Your task to perform on an android device: When is my next meeting? Image 0: 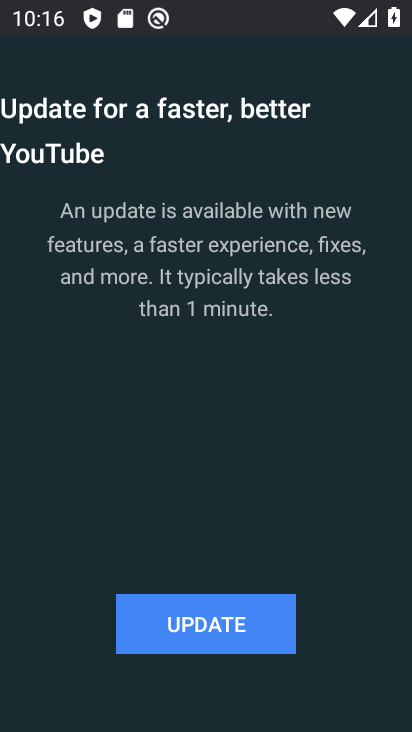
Step 0: press home button
Your task to perform on an android device: When is my next meeting? Image 1: 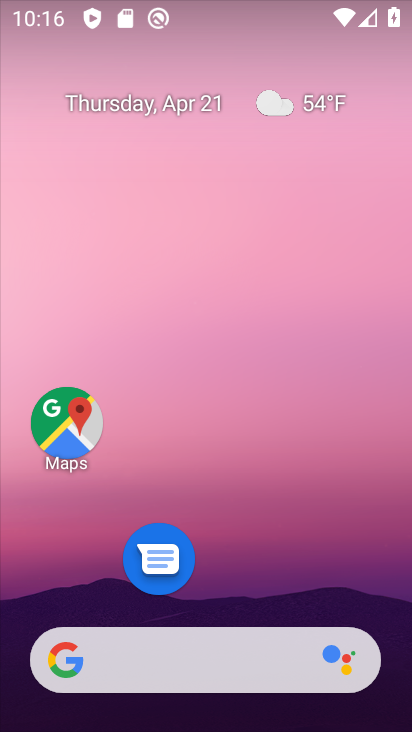
Step 1: drag from (168, 343) to (200, 84)
Your task to perform on an android device: When is my next meeting? Image 2: 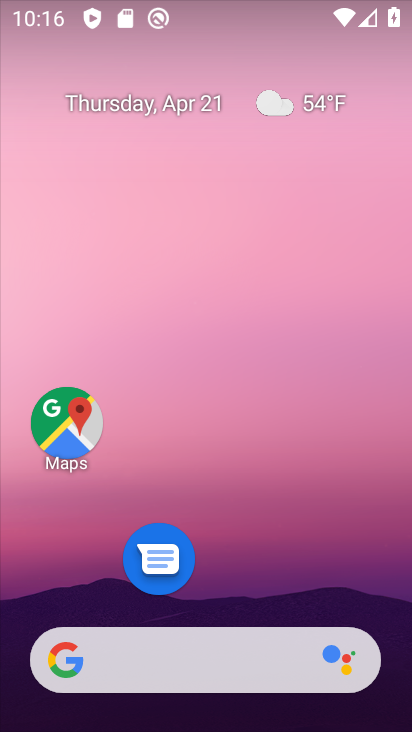
Step 2: drag from (245, 558) to (257, 29)
Your task to perform on an android device: When is my next meeting? Image 3: 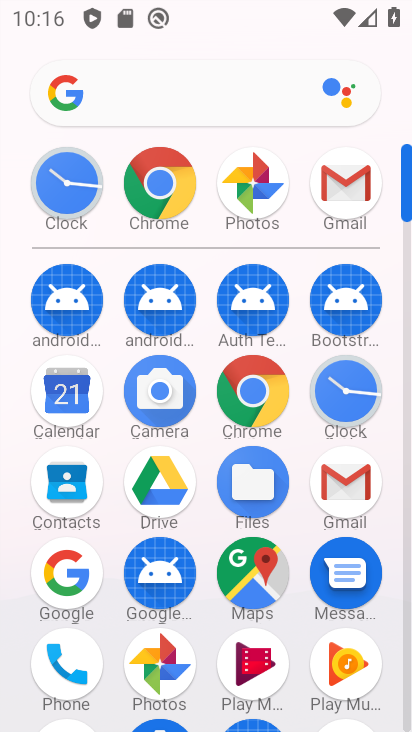
Step 3: click (81, 398)
Your task to perform on an android device: When is my next meeting? Image 4: 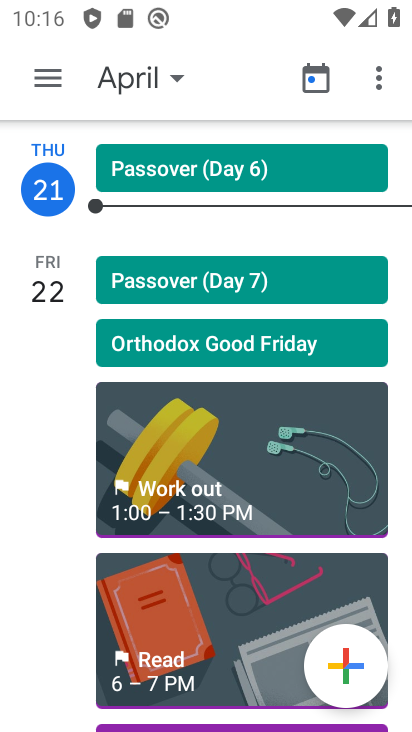
Step 4: task complete